Your task to perform on an android device: empty trash in the gmail app Image 0: 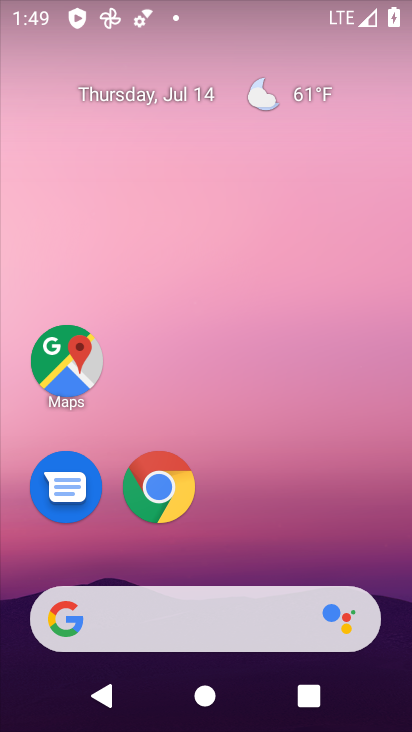
Step 0: drag from (352, 531) to (349, 105)
Your task to perform on an android device: empty trash in the gmail app Image 1: 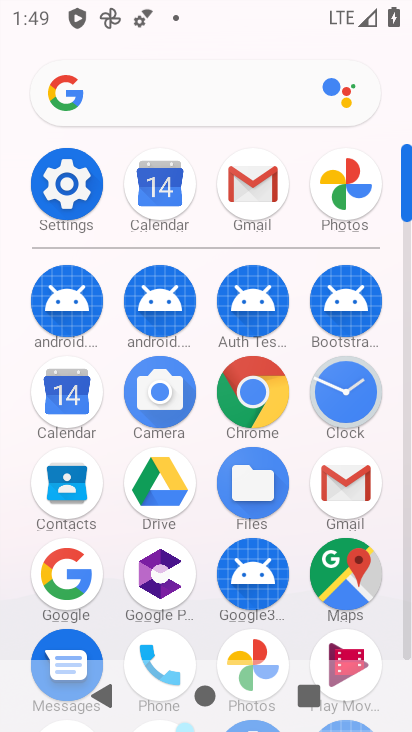
Step 1: drag from (388, 534) to (387, 214)
Your task to perform on an android device: empty trash in the gmail app Image 2: 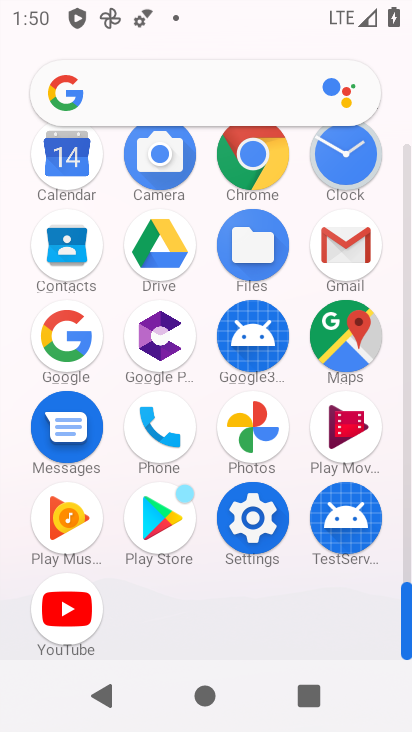
Step 2: click (352, 254)
Your task to perform on an android device: empty trash in the gmail app Image 3: 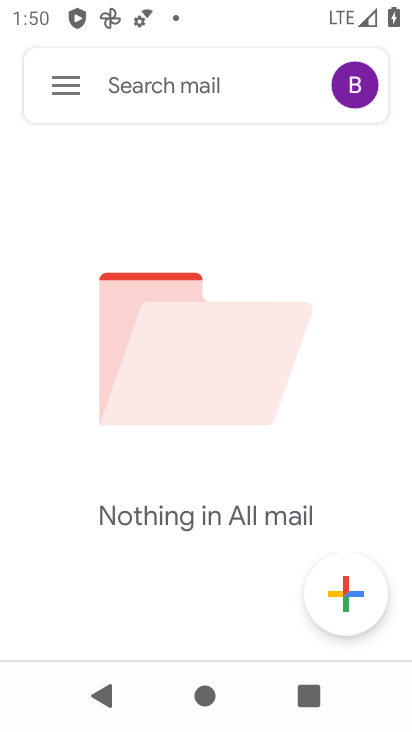
Step 3: click (70, 81)
Your task to perform on an android device: empty trash in the gmail app Image 4: 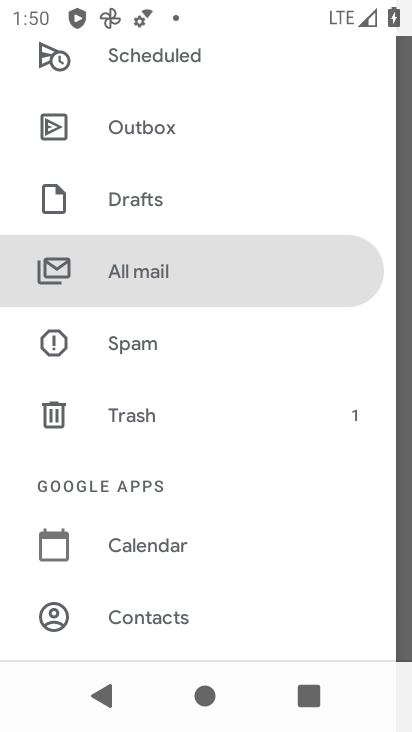
Step 4: drag from (260, 425) to (262, 322)
Your task to perform on an android device: empty trash in the gmail app Image 5: 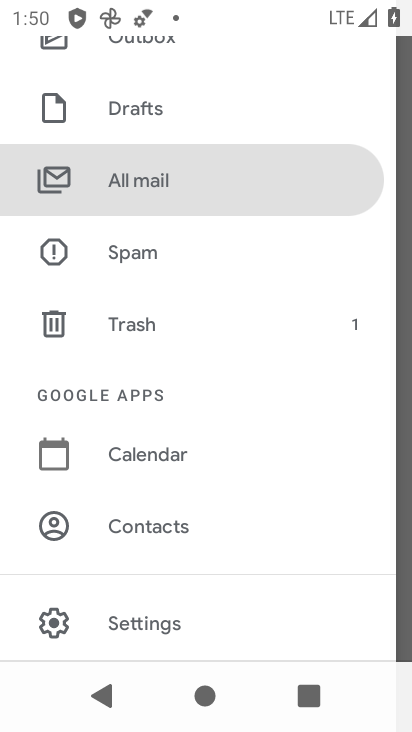
Step 5: drag from (257, 477) to (265, 349)
Your task to perform on an android device: empty trash in the gmail app Image 6: 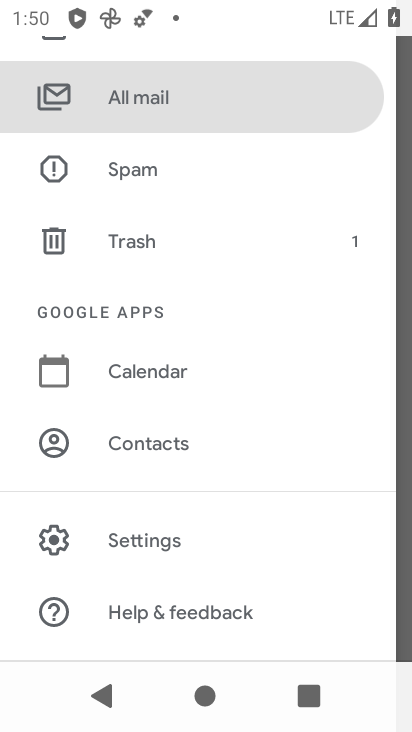
Step 6: drag from (281, 447) to (271, 303)
Your task to perform on an android device: empty trash in the gmail app Image 7: 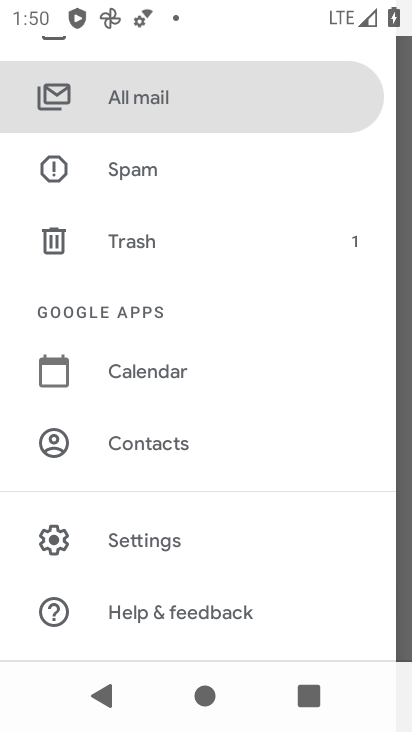
Step 7: drag from (278, 240) to (294, 345)
Your task to perform on an android device: empty trash in the gmail app Image 8: 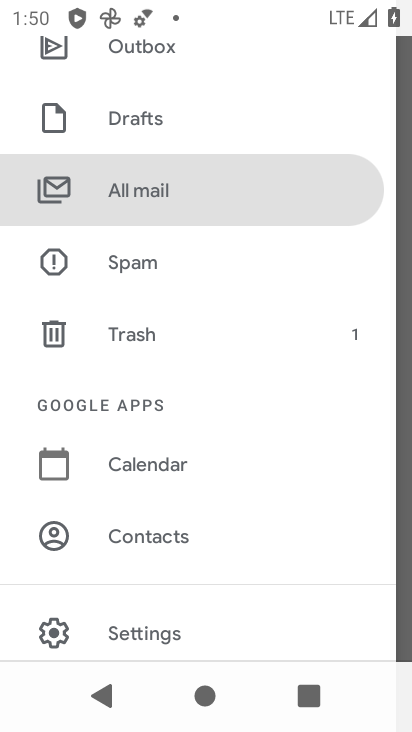
Step 8: drag from (278, 263) to (279, 375)
Your task to perform on an android device: empty trash in the gmail app Image 9: 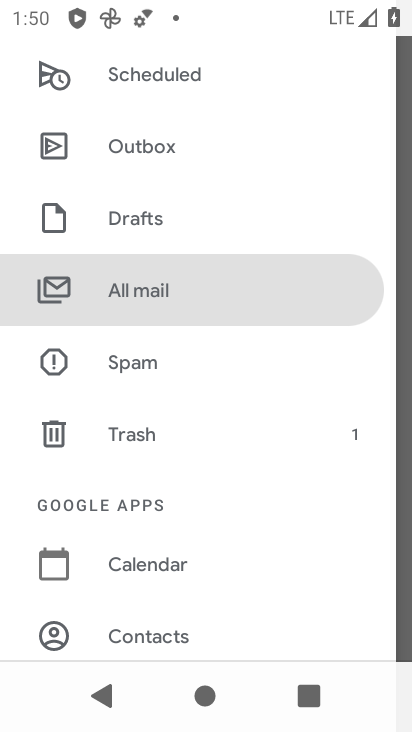
Step 9: drag from (261, 197) to (275, 321)
Your task to perform on an android device: empty trash in the gmail app Image 10: 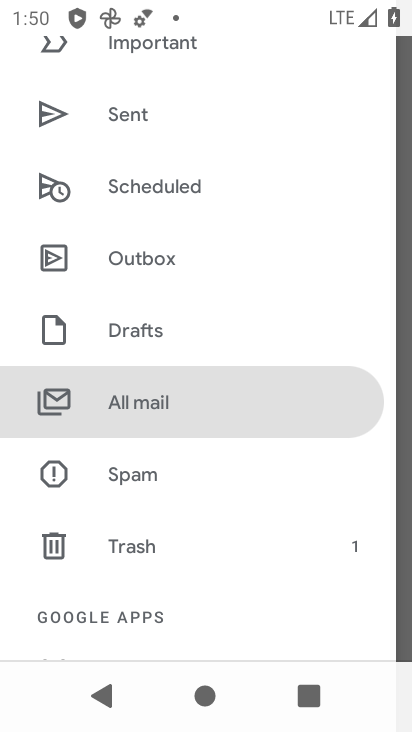
Step 10: click (161, 545)
Your task to perform on an android device: empty trash in the gmail app Image 11: 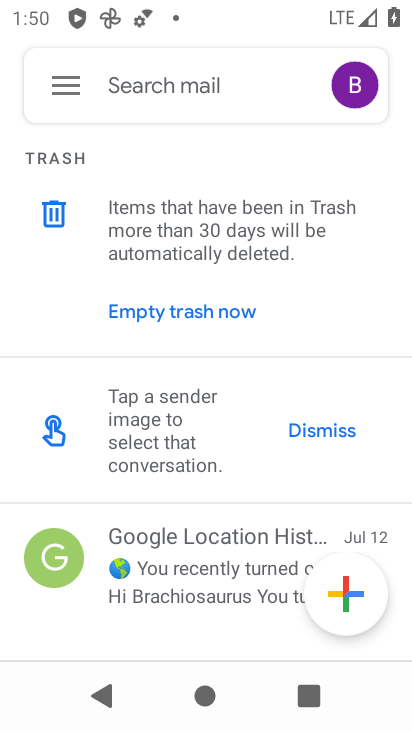
Step 11: click (191, 309)
Your task to perform on an android device: empty trash in the gmail app Image 12: 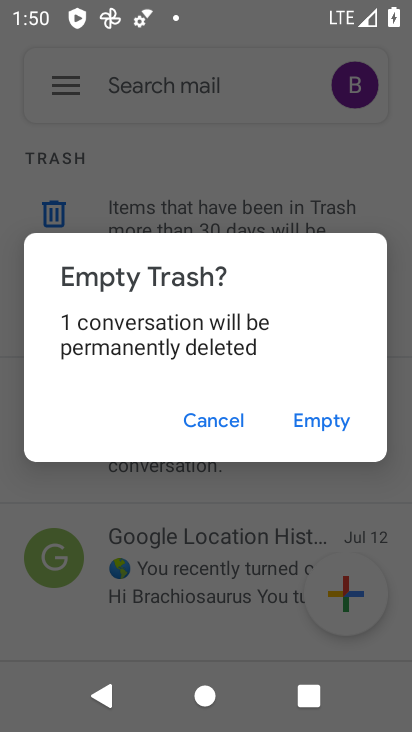
Step 12: click (315, 422)
Your task to perform on an android device: empty trash in the gmail app Image 13: 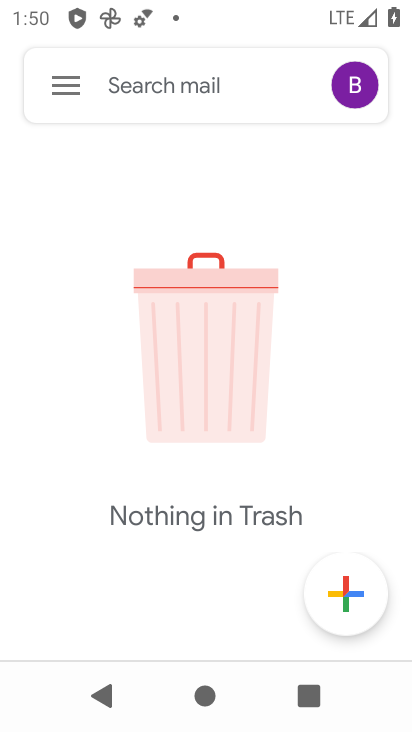
Step 13: task complete